Your task to perform on an android device: clear all cookies in the chrome app Image 0: 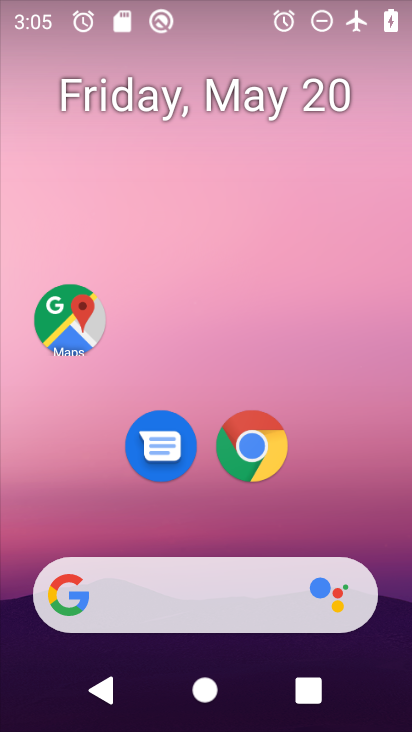
Step 0: click (254, 441)
Your task to perform on an android device: clear all cookies in the chrome app Image 1: 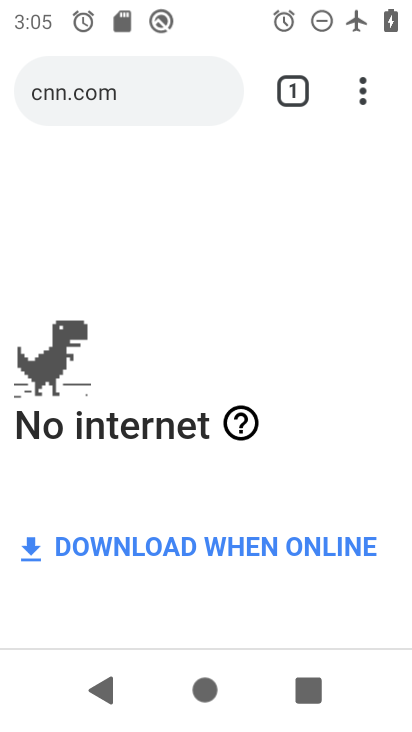
Step 1: click (357, 96)
Your task to perform on an android device: clear all cookies in the chrome app Image 2: 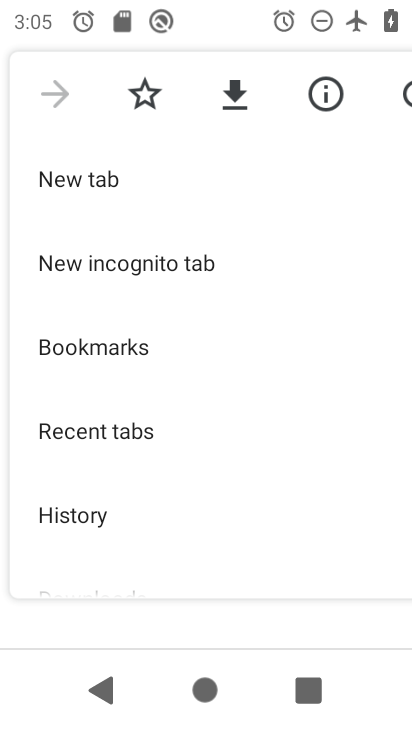
Step 2: drag from (199, 448) to (203, 42)
Your task to perform on an android device: clear all cookies in the chrome app Image 3: 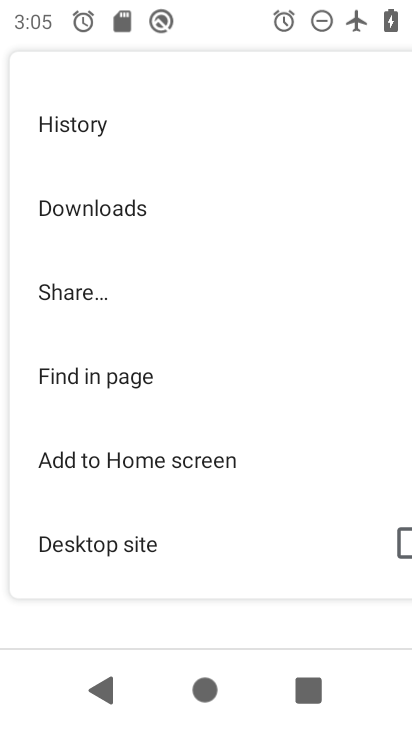
Step 3: drag from (174, 441) to (188, 80)
Your task to perform on an android device: clear all cookies in the chrome app Image 4: 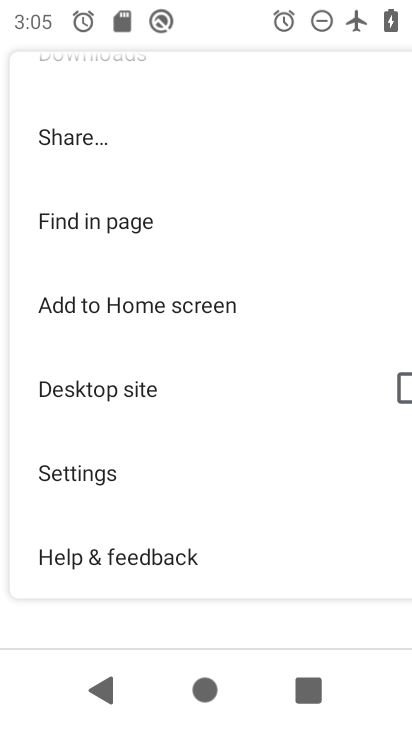
Step 4: click (108, 471)
Your task to perform on an android device: clear all cookies in the chrome app Image 5: 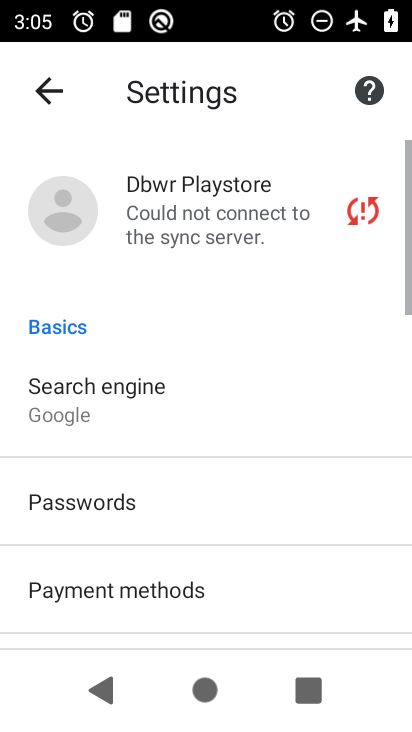
Step 5: drag from (208, 566) to (214, 19)
Your task to perform on an android device: clear all cookies in the chrome app Image 6: 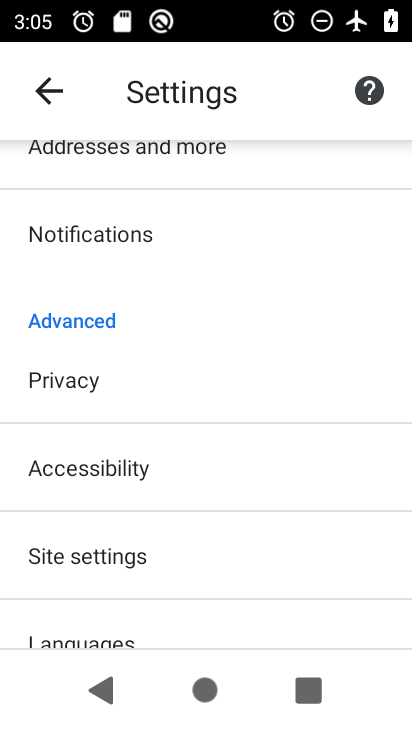
Step 6: drag from (187, 534) to (187, 276)
Your task to perform on an android device: clear all cookies in the chrome app Image 7: 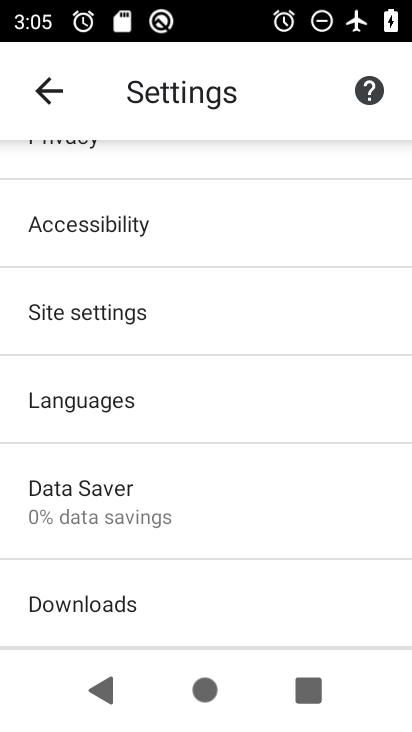
Step 7: click (72, 144)
Your task to perform on an android device: clear all cookies in the chrome app Image 8: 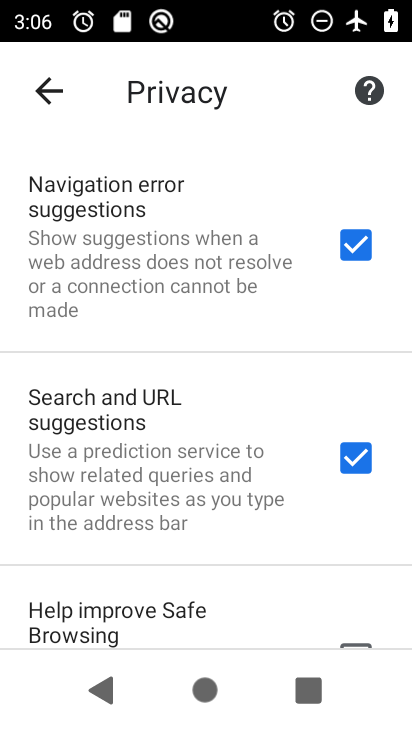
Step 8: drag from (157, 495) to (175, 170)
Your task to perform on an android device: clear all cookies in the chrome app Image 9: 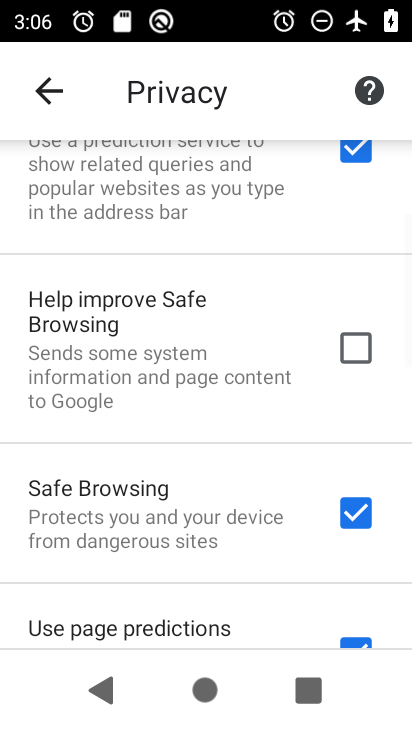
Step 9: drag from (131, 547) to (133, 185)
Your task to perform on an android device: clear all cookies in the chrome app Image 10: 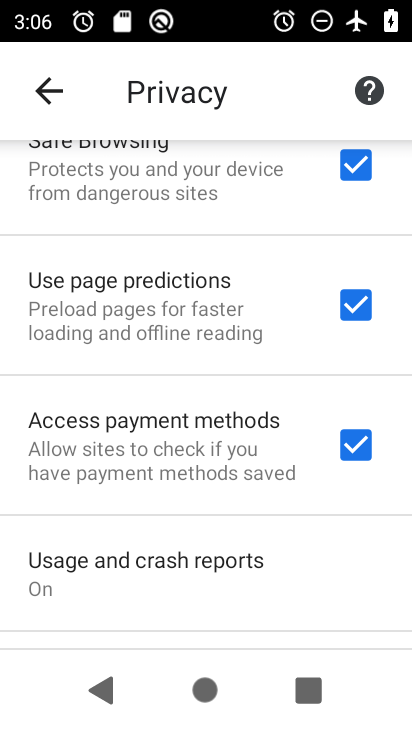
Step 10: drag from (103, 534) to (129, 183)
Your task to perform on an android device: clear all cookies in the chrome app Image 11: 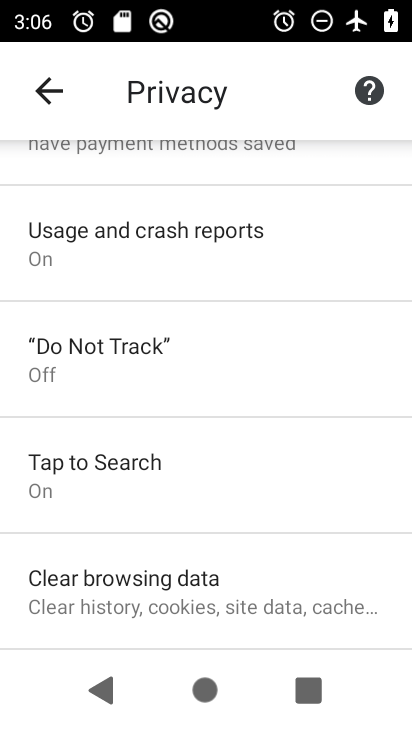
Step 11: click (155, 592)
Your task to perform on an android device: clear all cookies in the chrome app Image 12: 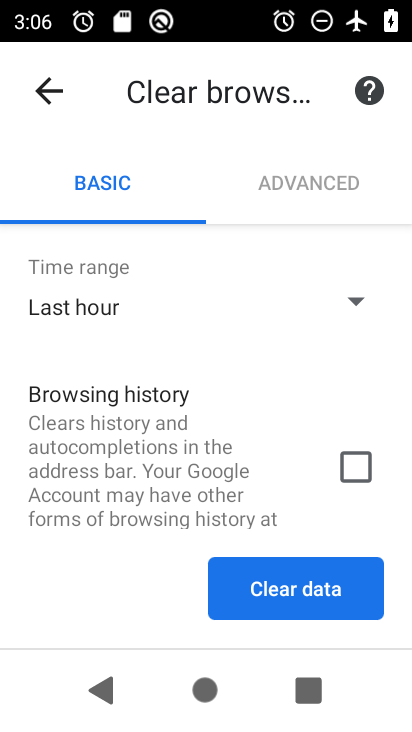
Step 12: drag from (103, 380) to (93, 156)
Your task to perform on an android device: clear all cookies in the chrome app Image 13: 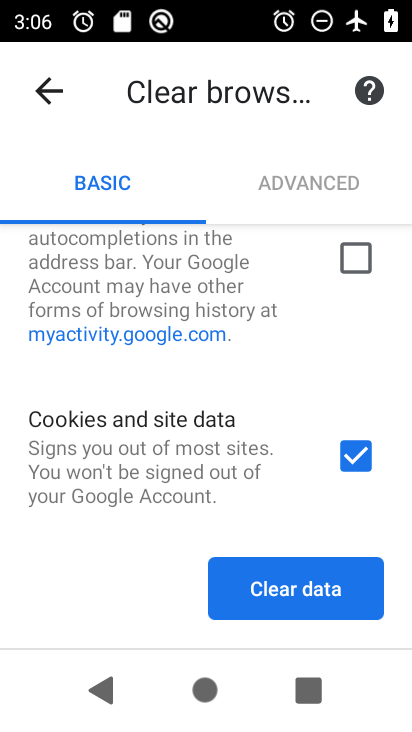
Step 13: drag from (114, 468) to (115, 206)
Your task to perform on an android device: clear all cookies in the chrome app Image 14: 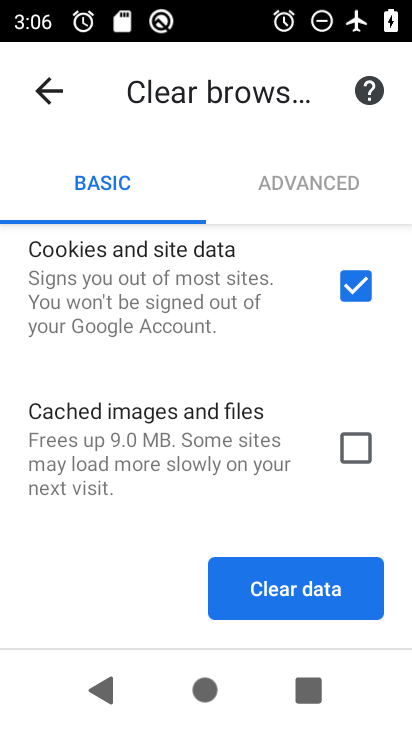
Step 14: drag from (114, 462) to (120, 265)
Your task to perform on an android device: clear all cookies in the chrome app Image 15: 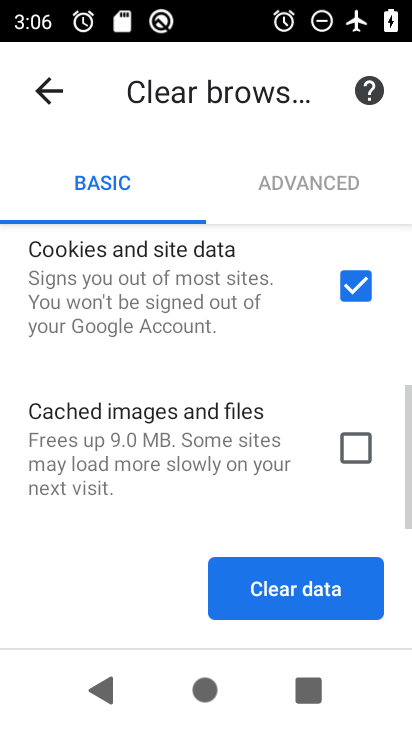
Step 15: click (301, 603)
Your task to perform on an android device: clear all cookies in the chrome app Image 16: 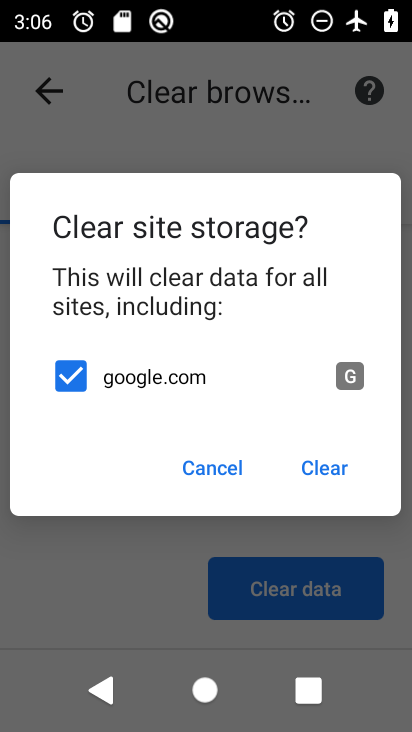
Step 16: click (334, 463)
Your task to perform on an android device: clear all cookies in the chrome app Image 17: 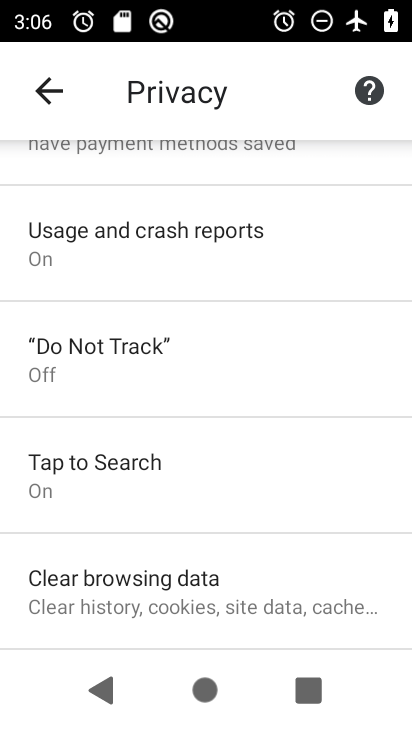
Step 17: task complete